Your task to perform on an android device: change text size in settings app Image 0: 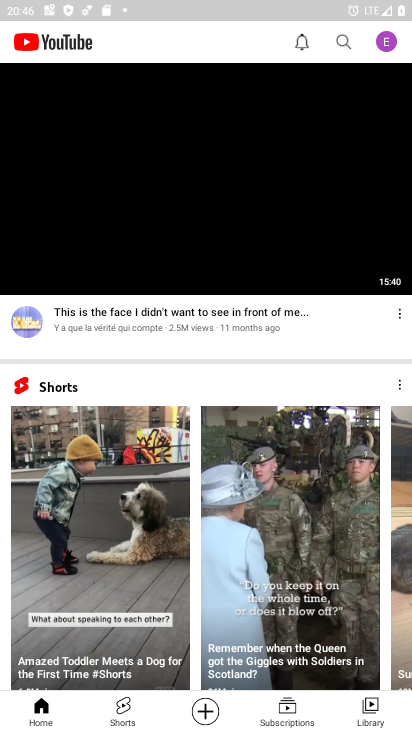
Step 0: press home button
Your task to perform on an android device: change text size in settings app Image 1: 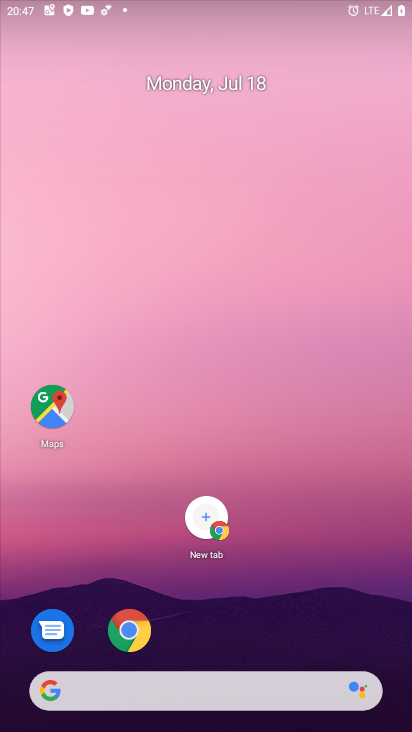
Step 1: drag from (231, 659) to (258, 421)
Your task to perform on an android device: change text size in settings app Image 2: 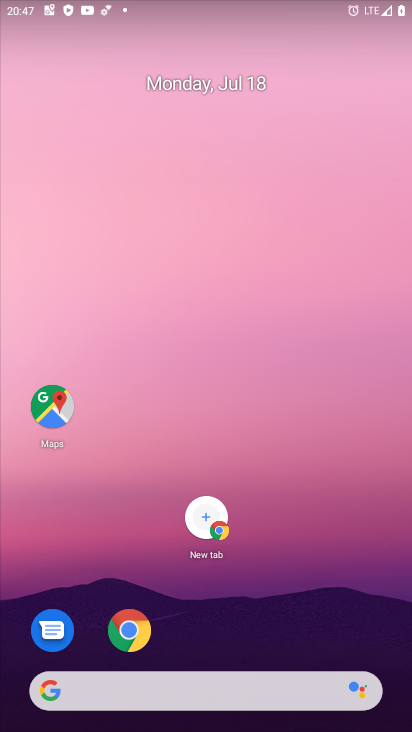
Step 2: drag from (309, 609) to (307, 217)
Your task to perform on an android device: change text size in settings app Image 3: 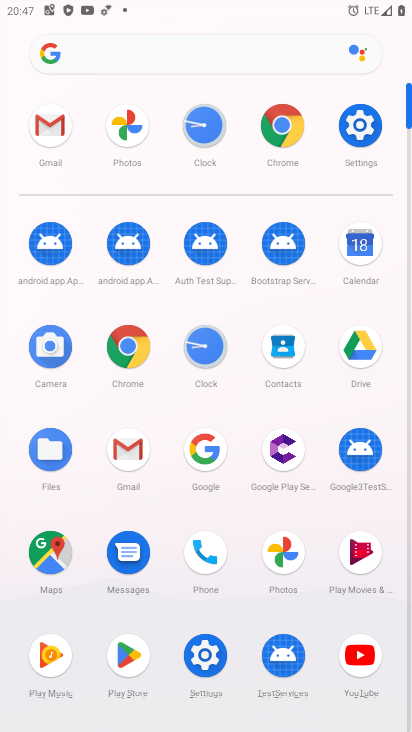
Step 3: click (124, 137)
Your task to perform on an android device: change text size in settings app Image 4: 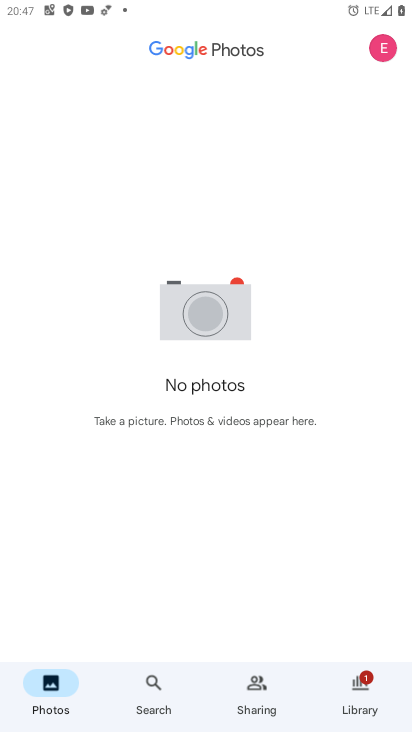
Step 4: click (381, 45)
Your task to perform on an android device: change text size in settings app Image 5: 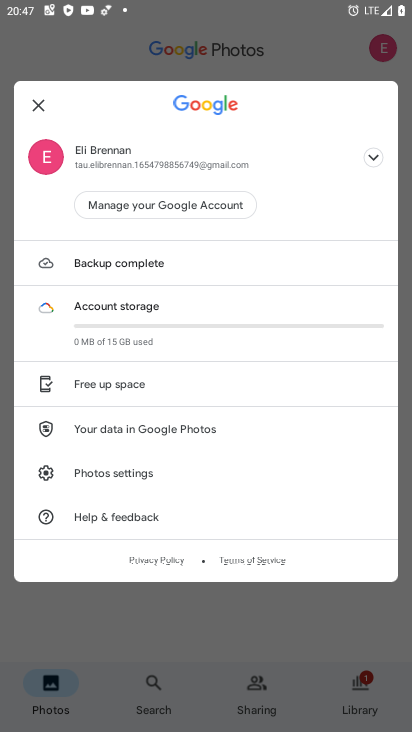
Step 5: click (91, 467)
Your task to perform on an android device: change text size in settings app Image 6: 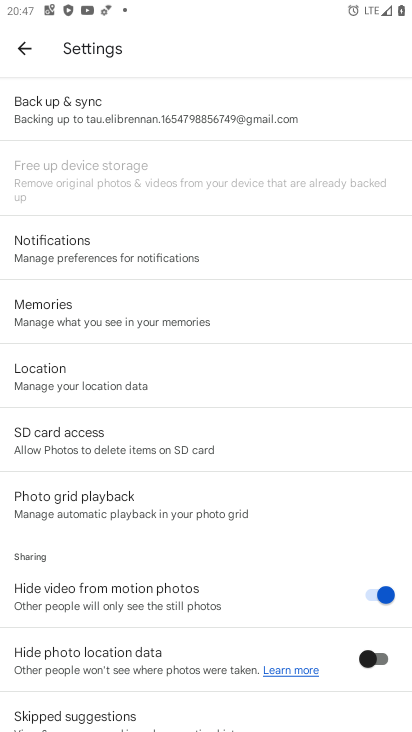
Step 6: click (35, 118)
Your task to perform on an android device: change text size in settings app Image 7: 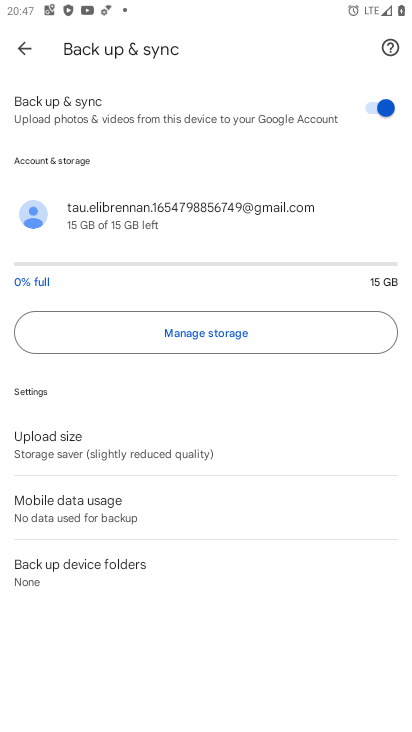
Step 7: click (50, 446)
Your task to perform on an android device: change text size in settings app Image 8: 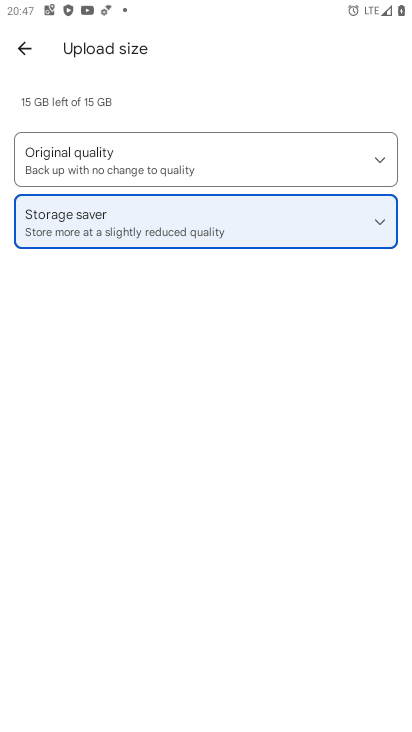
Step 8: task complete